Your task to perform on an android device: turn on wifi Image 0: 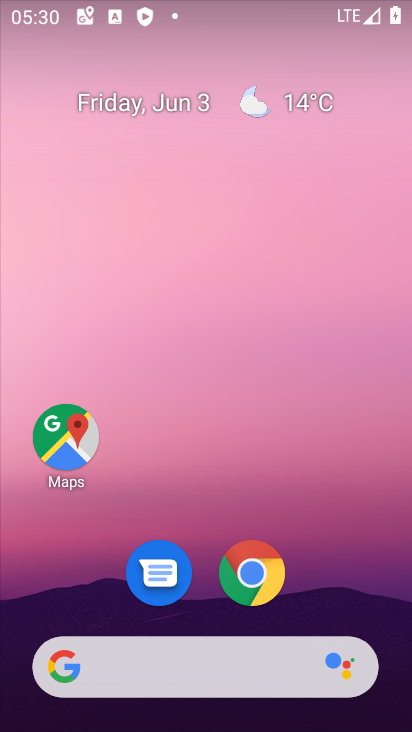
Step 0: click (264, 254)
Your task to perform on an android device: turn on wifi Image 1: 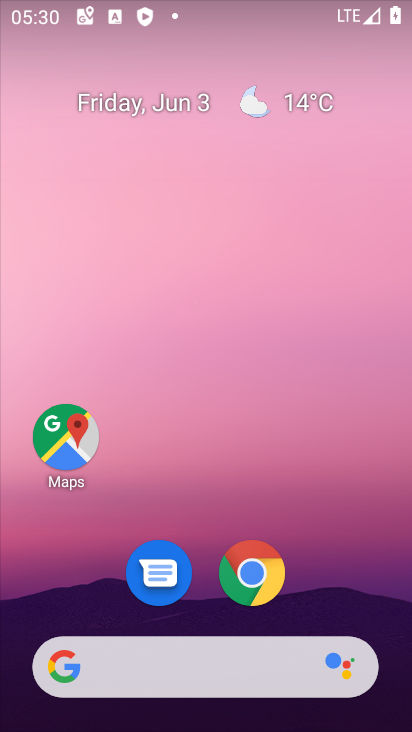
Step 1: drag from (378, 2) to (237, 258)
Your task to perform on an android device: turn on wifi Image 2: 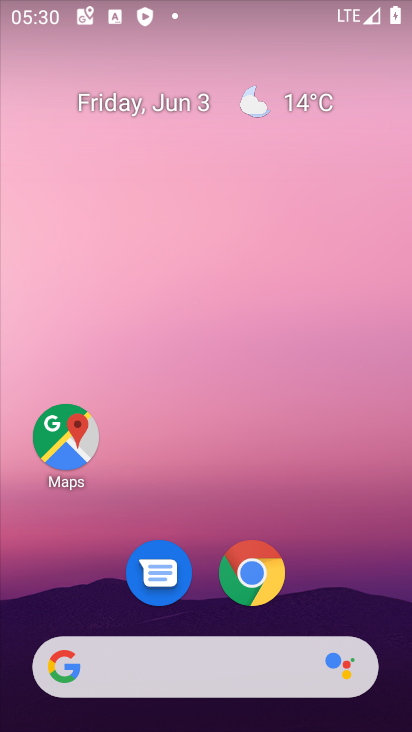
Step 2: drag from (366, 9) to (246, 330)
Your task to perform on an android device: turn on wifi Image 3: 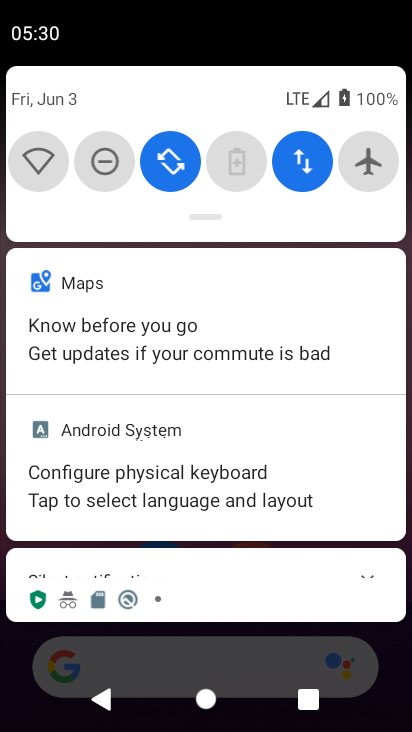
Step 3: click (35, 160)
Your task to perform on an android device: turn on wifi Image 4: 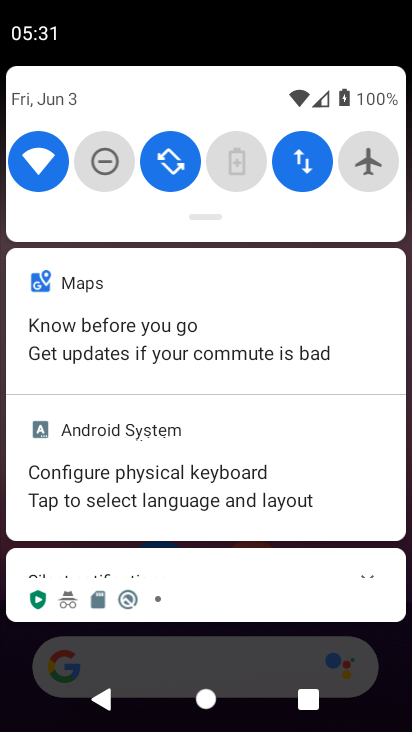
Step 4: task complete